Your task to perform on an android device: Go to Maps Image 0: 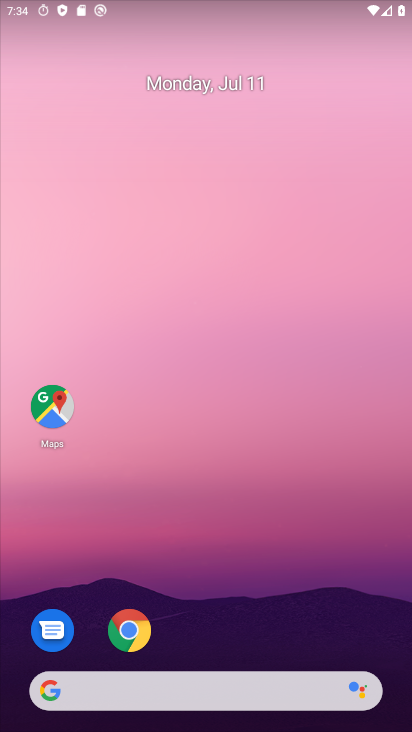
Step 0: click (46, 408)
Your task to perform on an android device: Go to Maps Image 1: 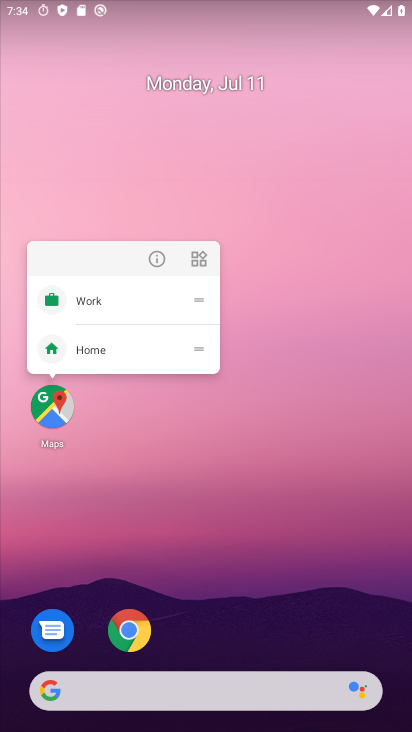
Step 1: click (46, 409)
Your task to perform on an android device: Go to Maps Image 2: 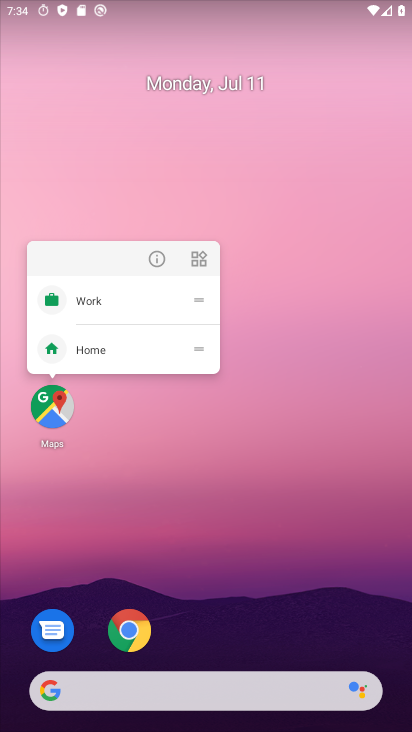
Step 2: click (48, 416)
Your task to perform on an android device: Go to Maps Image 3: 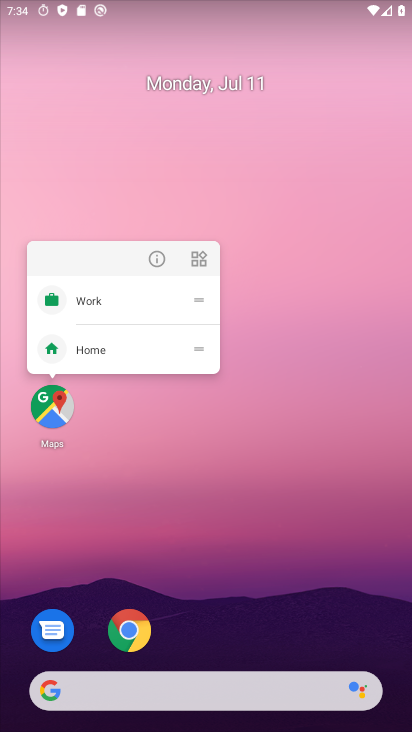
Step 3: click (48, 416)
Your task to perform on an android device: Go to Maps Image 4: 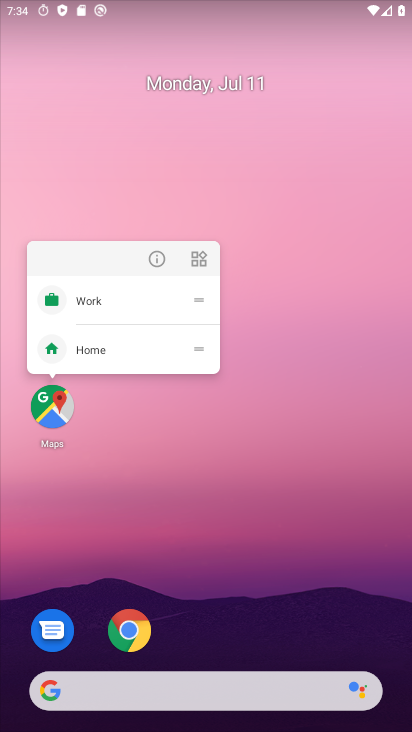
Step 4: click (48, 416)
Your task to perform on an android device: Go to Maps Image 5: 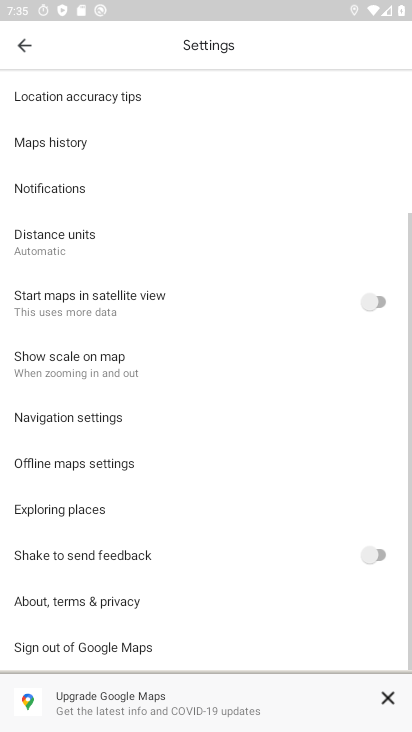
Step 5: click (24, 42)
Your task to perform on an android device: Go to Maps Image 6: 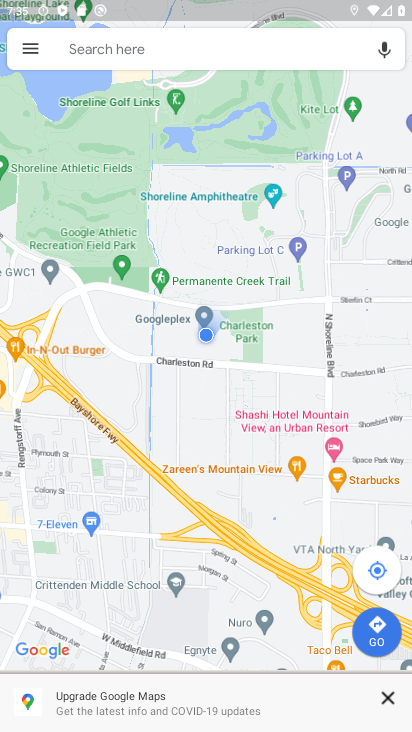
Step 6: task complete